Your task to perform on an android device: Open eBay Image 0: 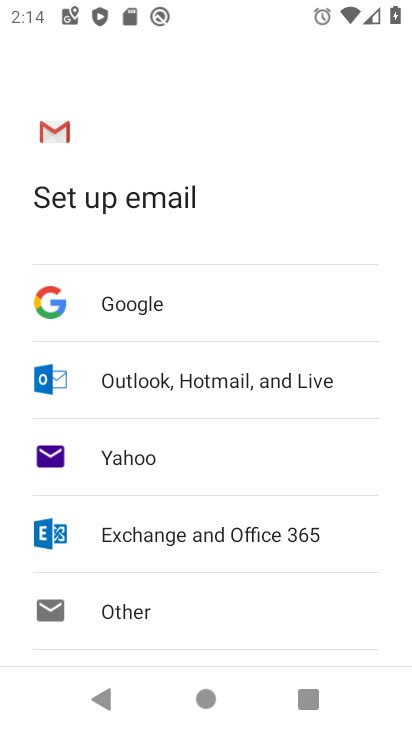
Step 0: press home button
Your task to perform on an android device: Open eBay Image 1: 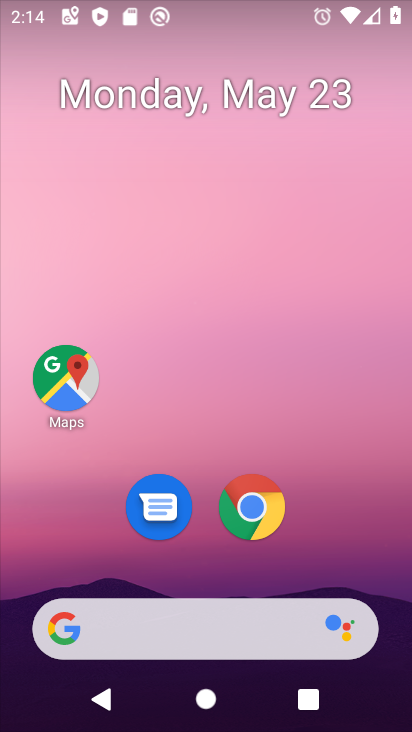
Step 1: click (257, 504)
Your task to perform on an android device: Open eBay Image 2: 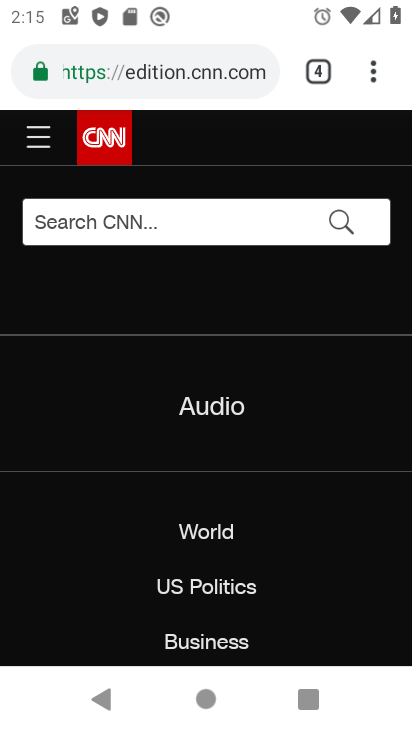
Step 2: click (375, 80)
Your task to perform on an android device: Open eBay Image 3: 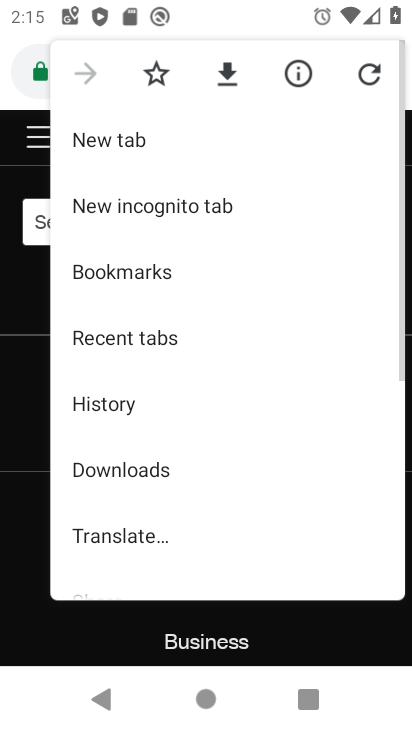
Step 3: click (127, 143)
Your task to perform on an android device: Open eBay Image 4: 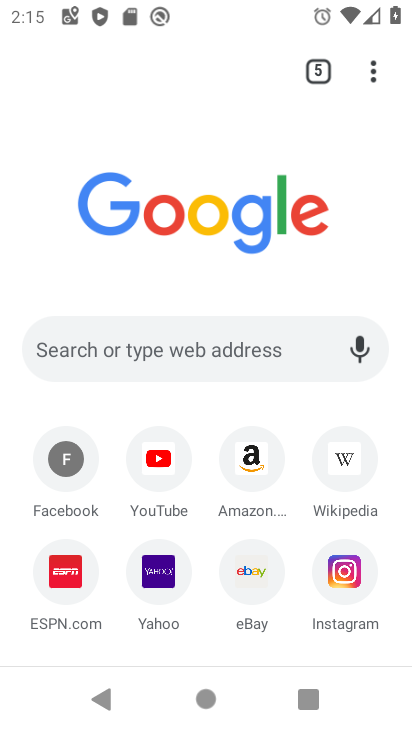
Step 4: click (254, 569)
Your task to perform on an android device: Open eBay Image 5: 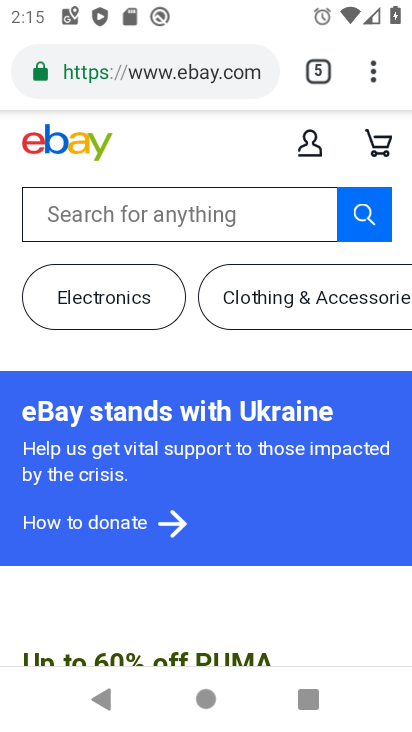
Step 5: task complete